Your task to perform on an android device: turn off notifications in google photos Image 0: 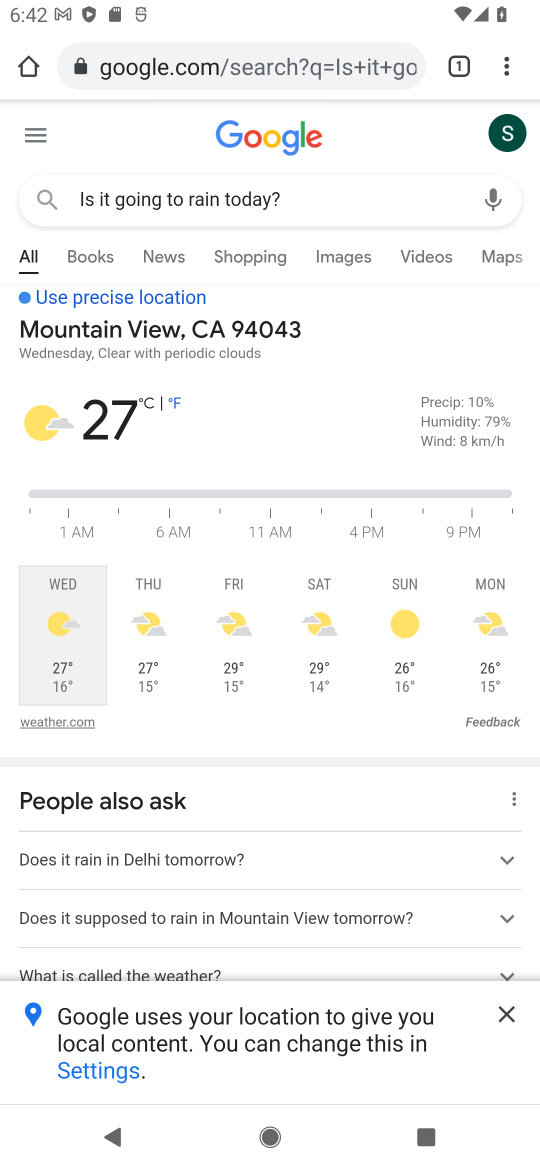
Step 0: press home button
Your task to perform on an android device: turn off notifications in google photos Image 1: 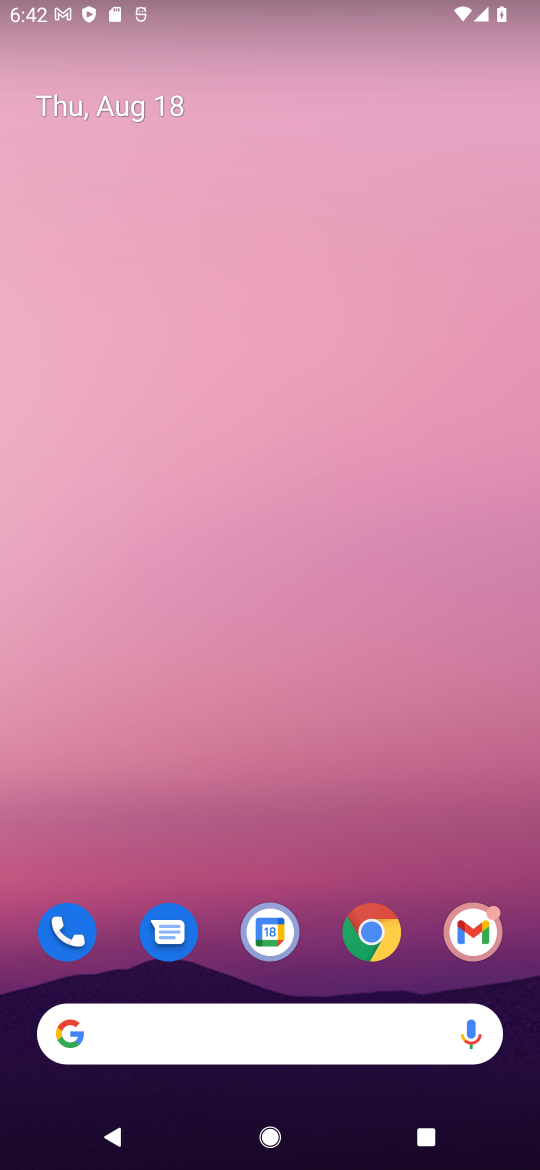
Step 1: drag from (313, 869) to (269, 55)
Your task to perform on an android device: turn off notifications in google photos Image 2: 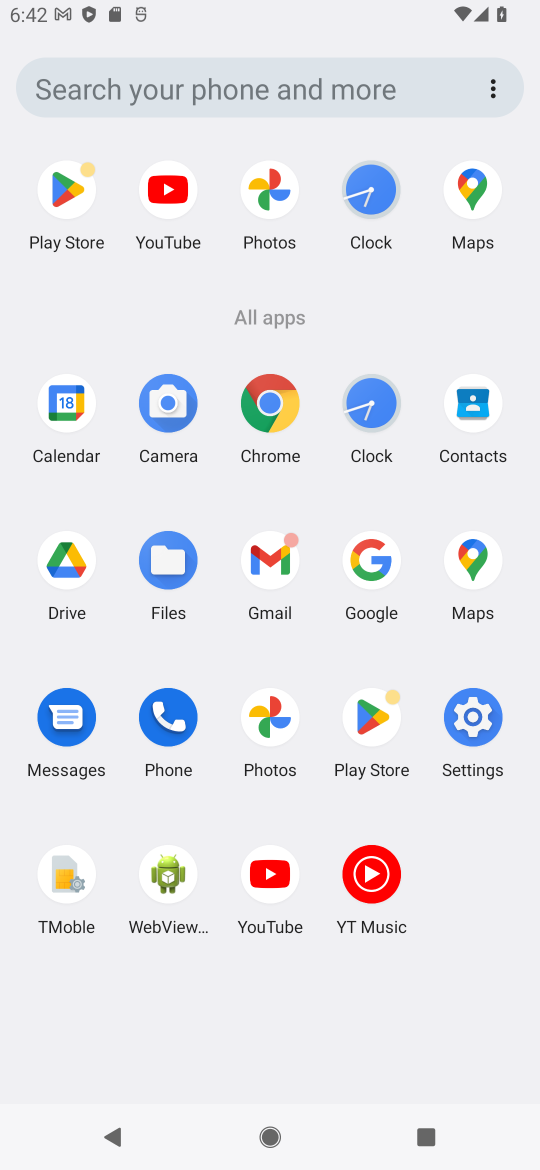
Step 2: drag from (279, 543) to (538, 711)
Your task to perform on an android device: turn off notifications in google photos Image 3: 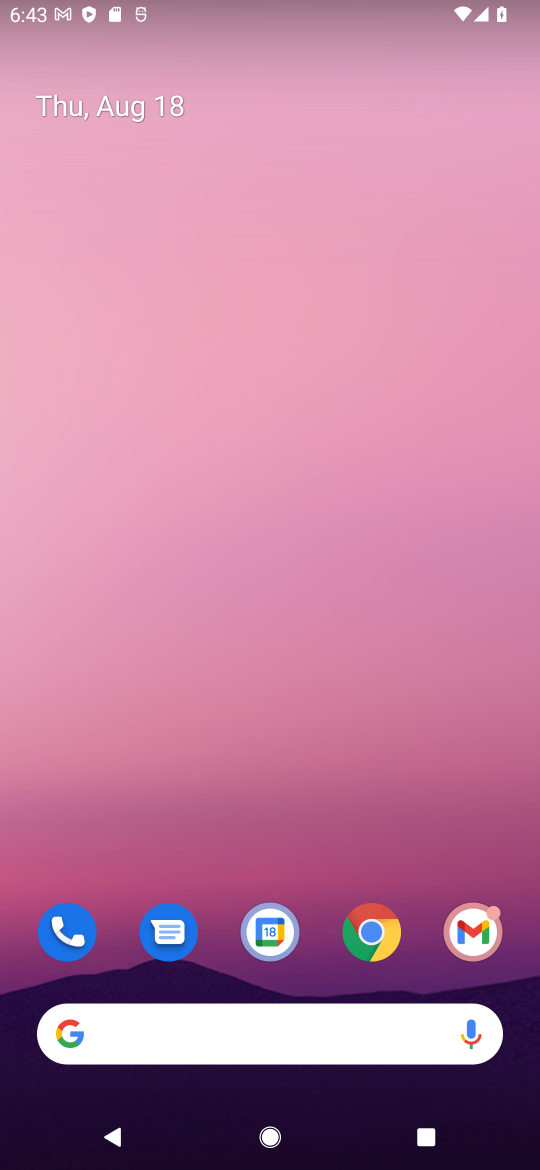
Step 3: drag from (329, 825) to (328, 43)
Your task to perform on an android device: turn off notifications in google photos Image 4: 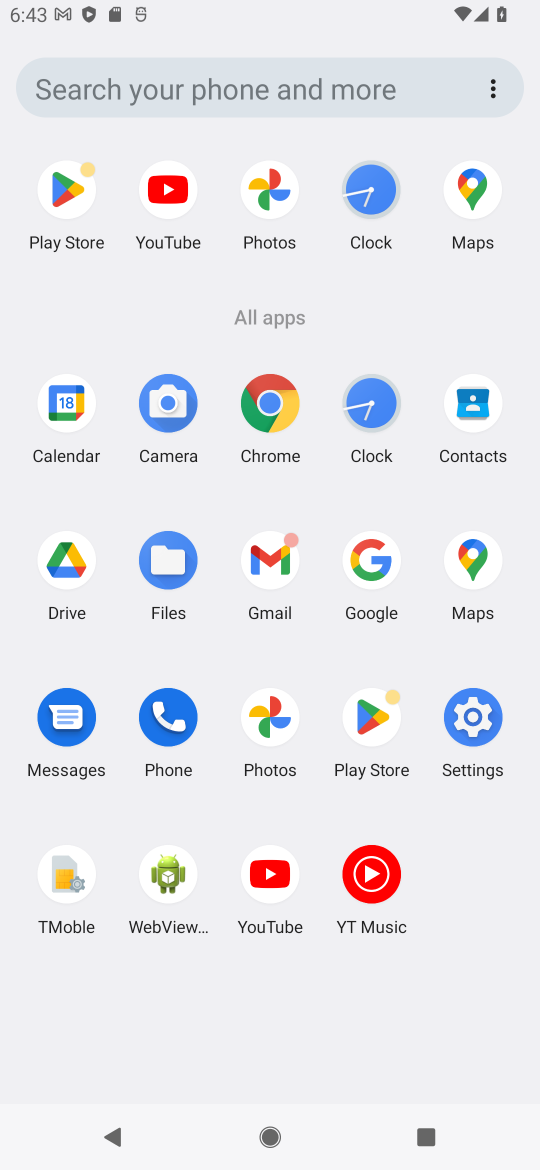
Step 4: click (280, 707)
Your task to perform on an android device: turn off notifications in google photos Image 5: 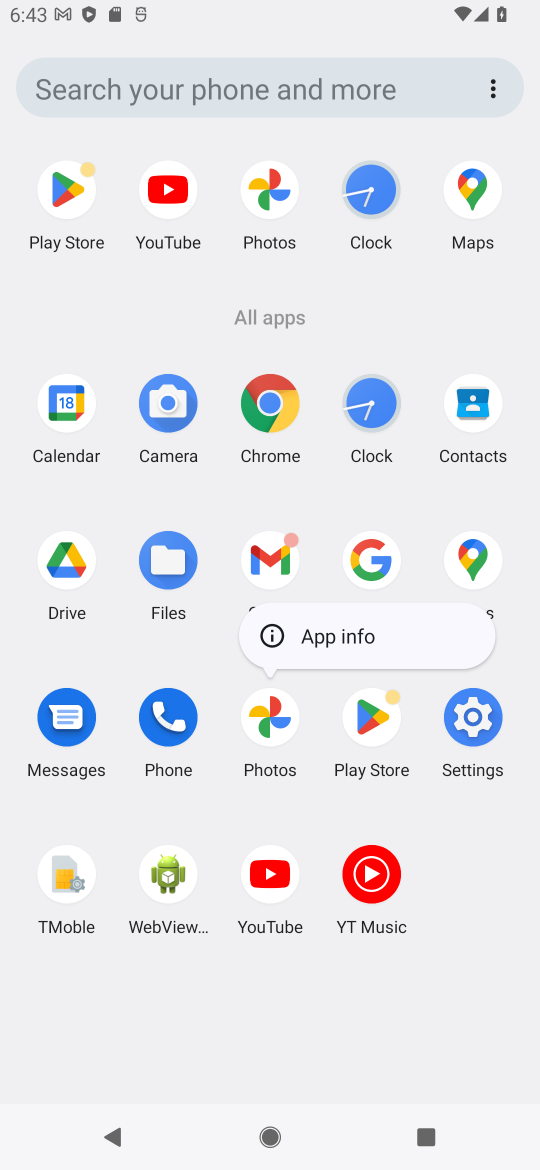
Step 5: click (332, 630)
Your task to perform on an android device: turn off notifications in google photos Image 6: 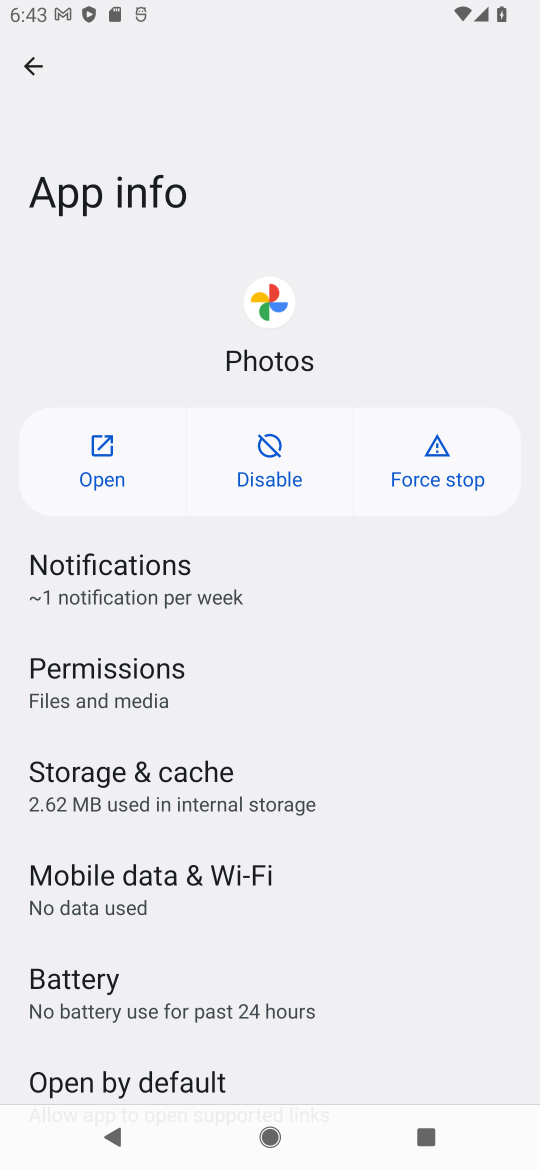
Step 6: click (138, 575)
Your task to perform on an android device: turn off notifications in google photos Image 7: 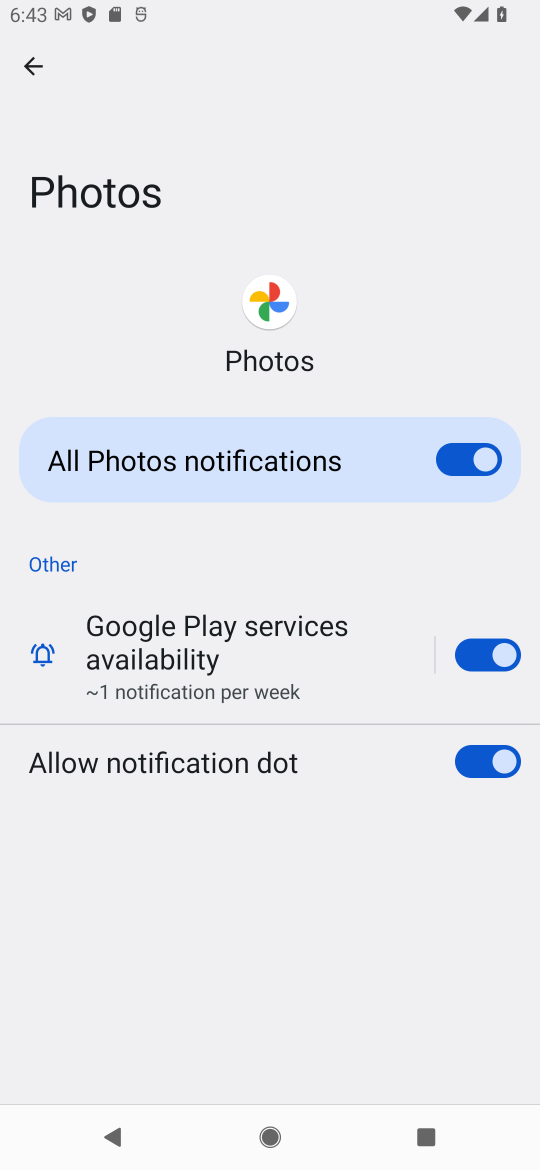
Step 7: click (454, 444)
Your task to perform on an android device: turn off notifications in google photos Image 8: 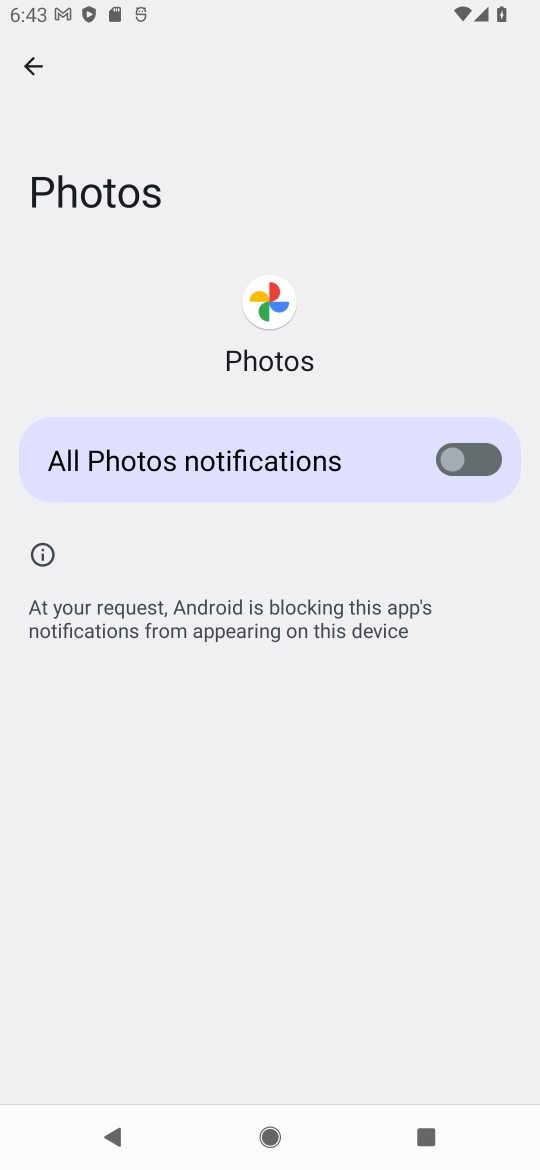
Step 8: task complete